Your task to perform on an android device: turn pop-ups off in chrome Image 0: 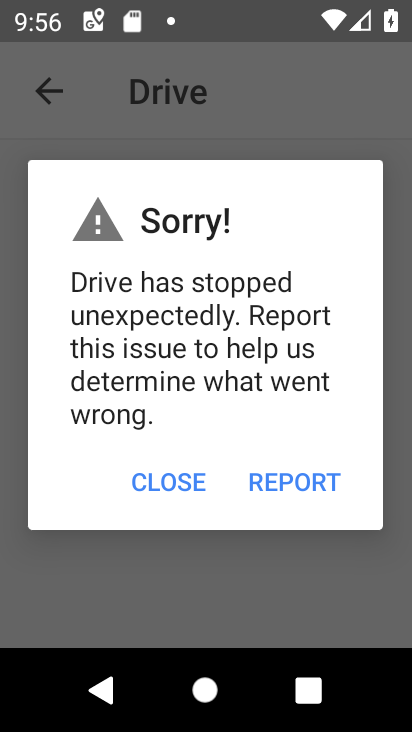
Step 0: press home button
Your task to perform on an android device: turn pop-ups off in chrome Image 1: 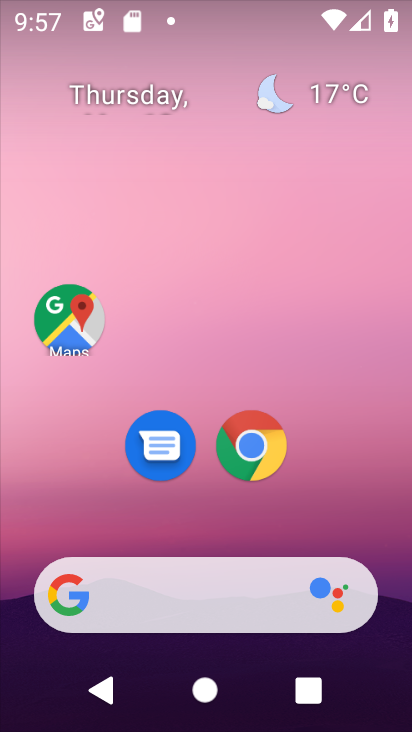
Step 1: drag from (263, 531) to (305, 170)
Your task to perform on an android device: turn pop-ups off in chrome Image 2: 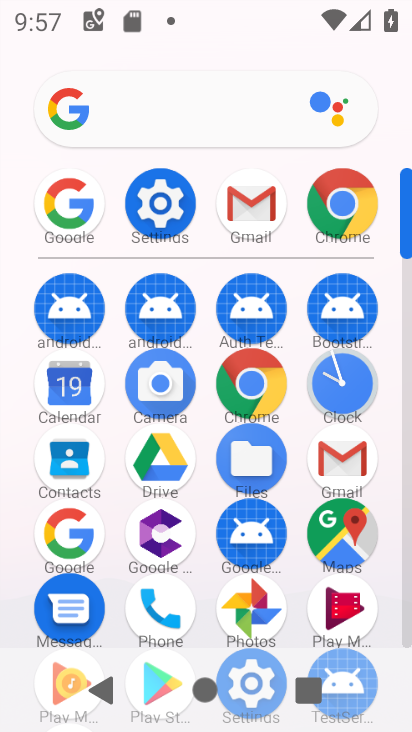
Step 2: click (225, 390)
Your task to perform on an android device: turn pop-ups off in chrome Image 3: 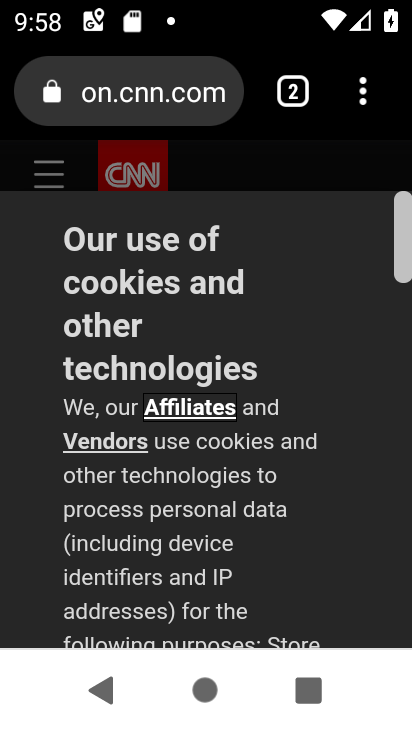
Step 3: click (365, 81)
Your task to perform on an android device: turn pop-ups off in chrome Image 4: 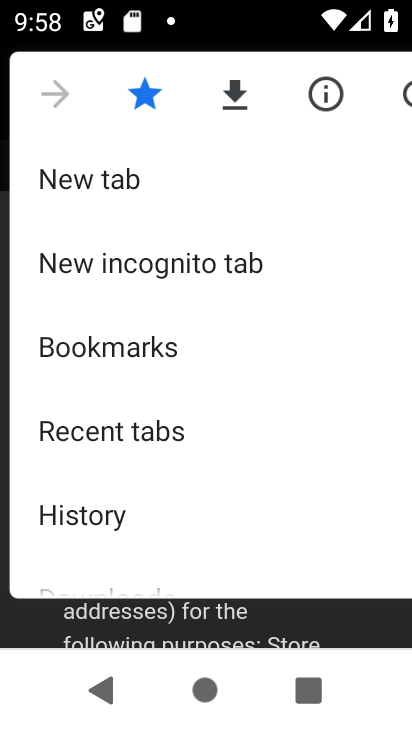
Step 4: drag from (201, 326) to (251, 144)
Your task to perform on an android device: turn pop-ups off in chrome Image 5: 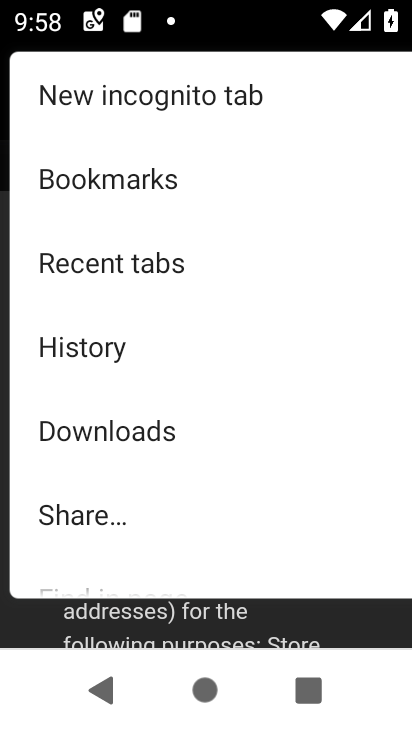
Step 5: drag from (216, 407) to (267, 146)
Your task to perform on an android device: turn pop-ups off in chrome Image 6: 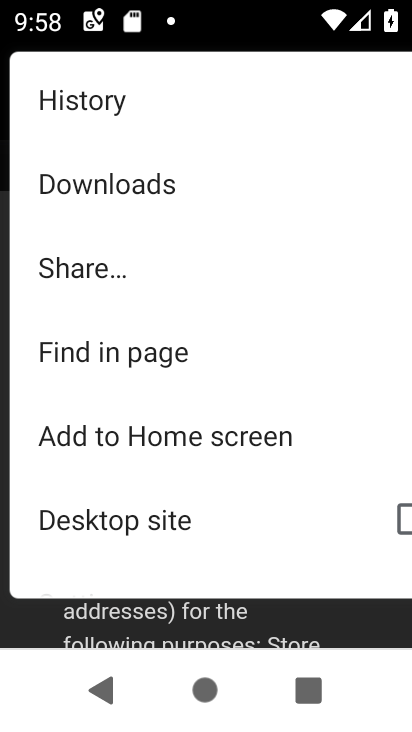
Step 6: drag from (220, 517) to (249, 217)
Your task to perform on an android device: turn pop-ups off in chrome Image 7: 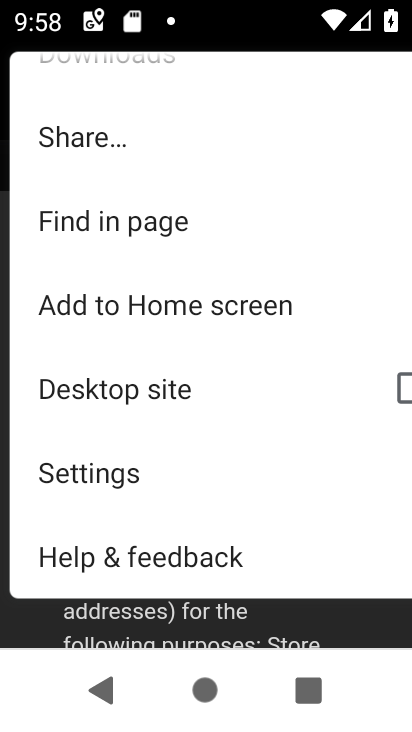
Step 7: click (164, 484)
Your task to perform on an android device: turn pop-ups off in chrome Image 8: 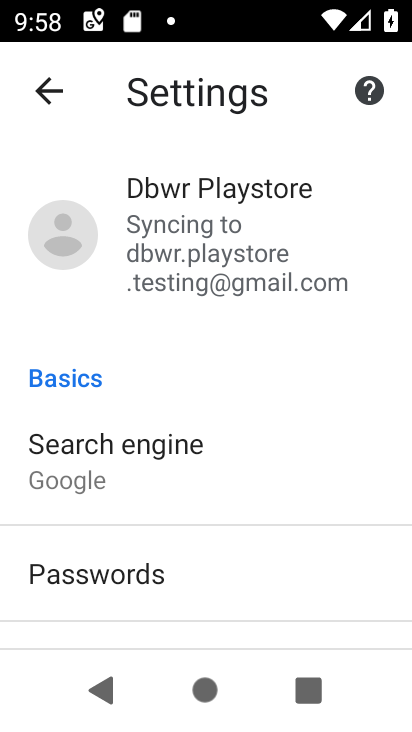
Step 8: drag from (187, 557) to (305, 230)
Your task to perform on an android device: turn pop-ups off in chrome Image 9: 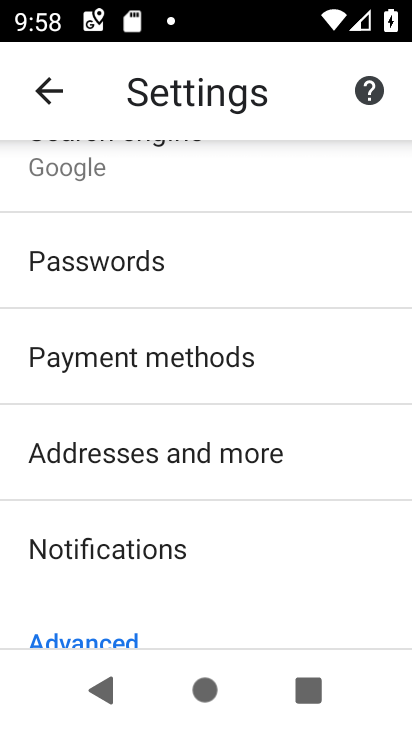
Step 9: drag from (210, 563) to (313, 262)
Your task to perform on an android device: turn pop-ups off in chrome Image 10: 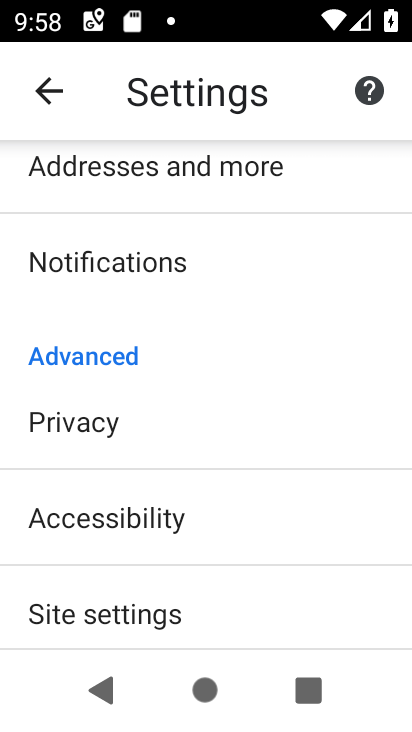
Step 10: click (214, 600)
Your task to perform on an android device: turn pop-ups off in chrome Image 11: 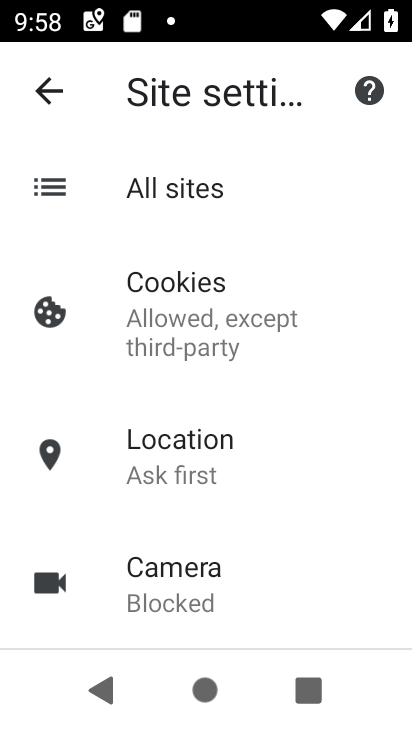
Step 11: drag from (225, 558) to (256, 319)
Your task to perform on an android device: turn pop-ups off in chrome Image 12: 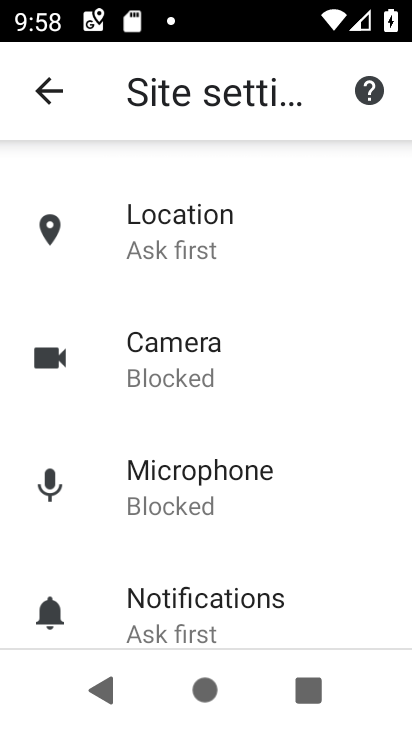
Step 12: drag from (274, 542) to (311, 225)
Your task to perform on an android device: turn pop-ups off in chrome Image 13: 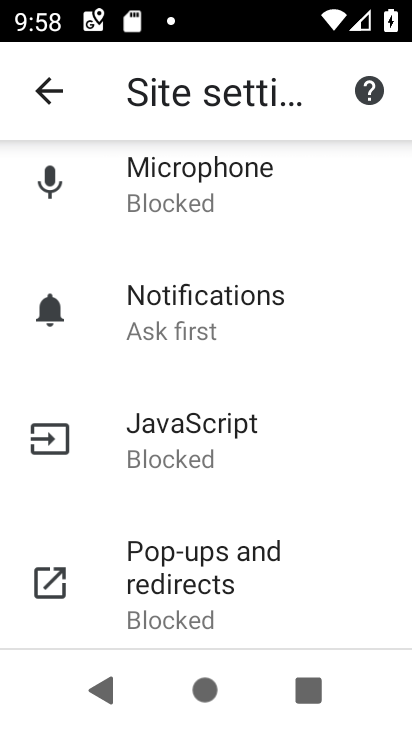
Step 13: click (275, 557)
Your task to perform on an android device: turn pop-ups off in chrome Image 14: 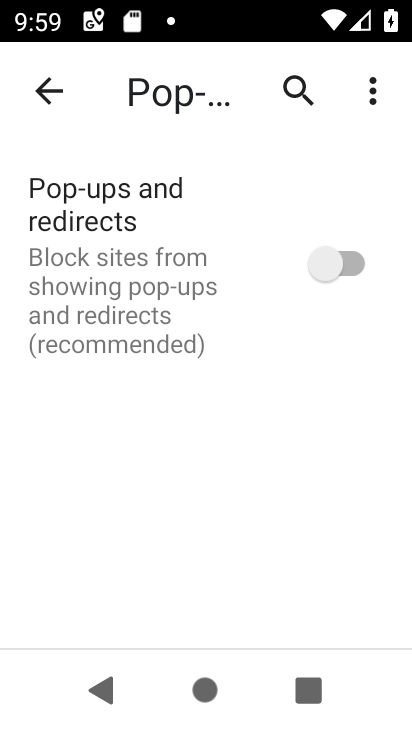
Step 14: click (350, 271)
Your task to perform on an android device: turn pop-ups off in chrome Image 15: 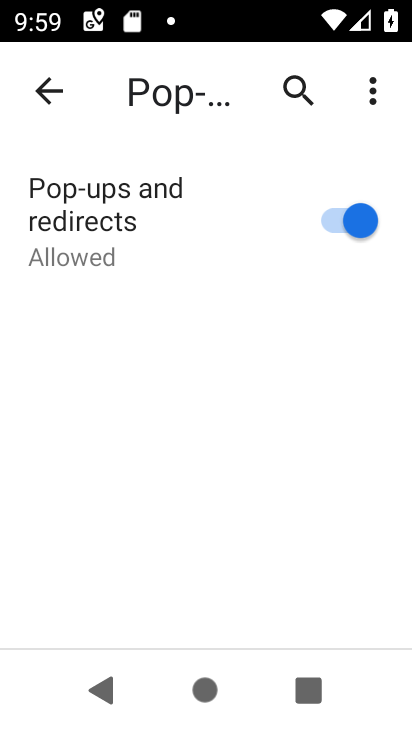
Step 15: task complete